Your task to perform on an android device: change the clock style Image 0: 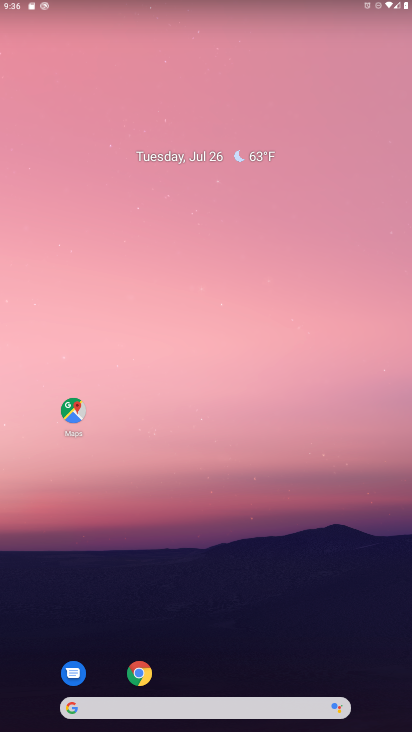
Step 0: drag from (306, 568) to (79, 65)
Your task to perform on an android device: change the clock style Image 1: 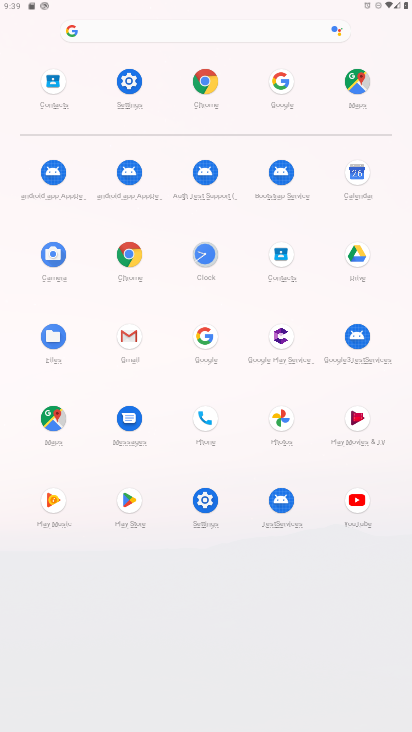
Step 1: click (201, 261)
Your task to perform on an android device: change the clock style Image 2: 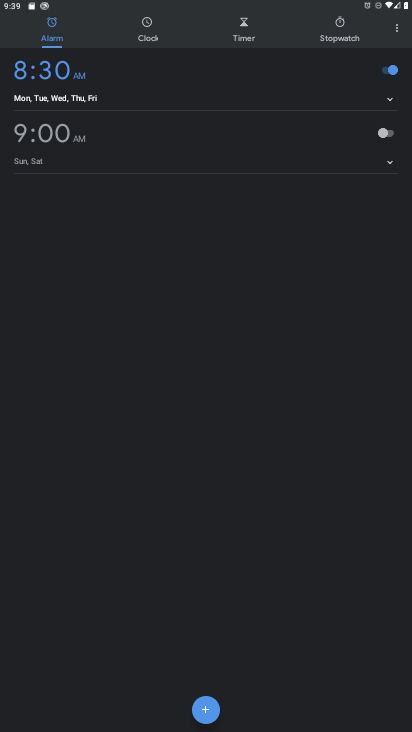
Step 2: click (397, 29)
Your task to perform on an android device: change the clock style Image 3: 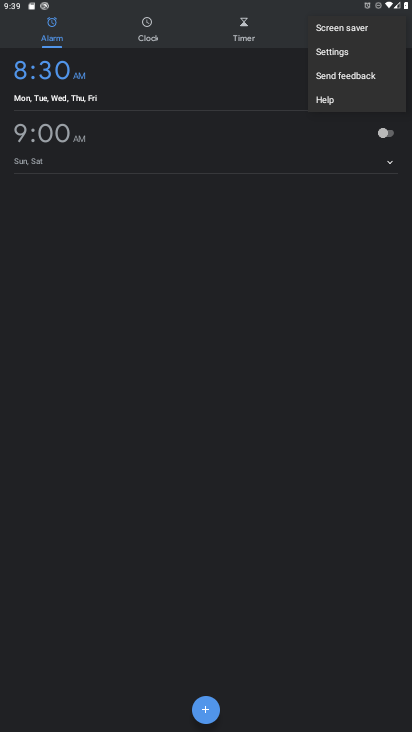
Step 3: click (342, 56)
Your task to perform on an android device: change the clock style Image 4: 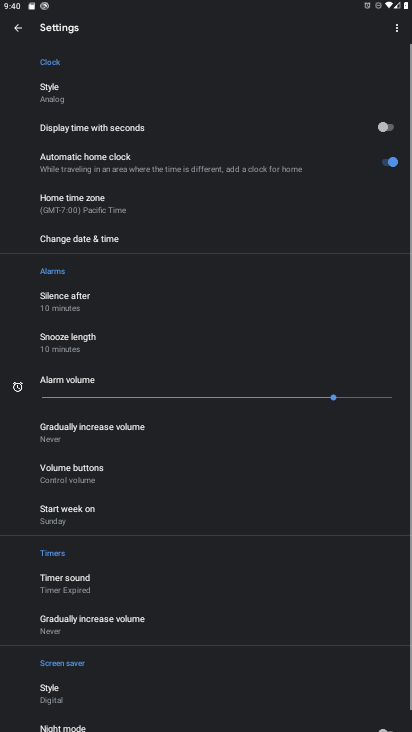
Step 4: click (85, 91)
Your task to perform on an android device: change the clock style Image 5: 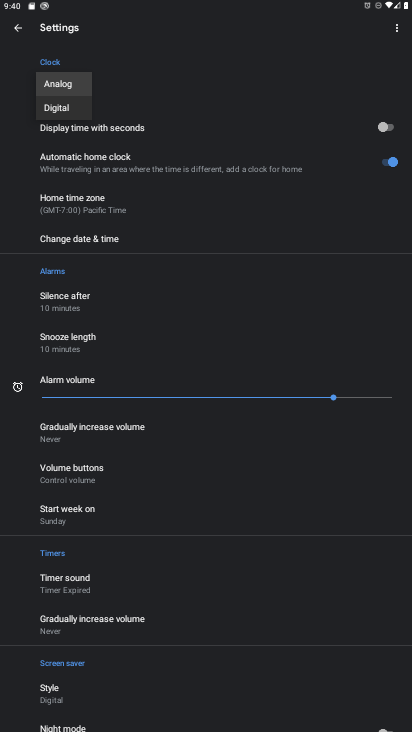
Step 5: click (68, 106)
Your task to perform on an android device: change the clock style Image 6: 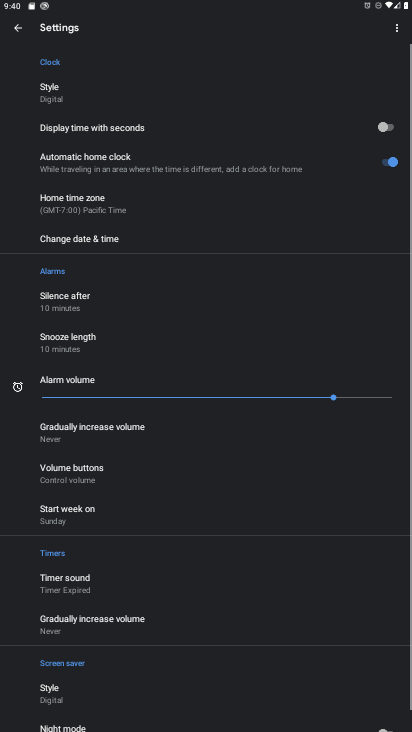
Step 6: task complete